Your task to perform on an android device: toggle priority inbox in the gmail app Image 0: 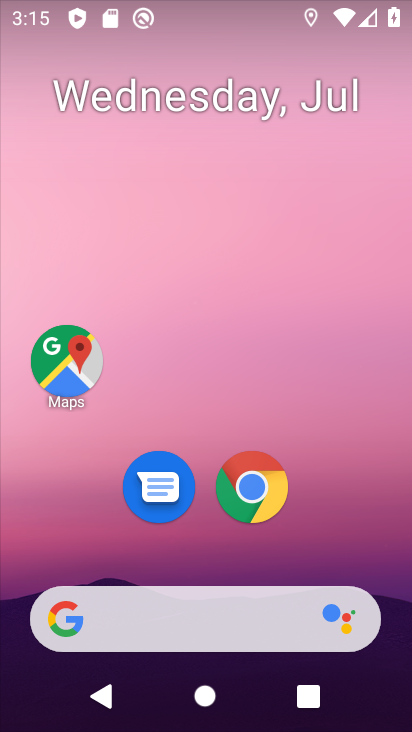
Step 0: drag from (173, 534) to (281, 14)
Your task to perform on an android device: toggle priority inbox in the gmail app Image 1: 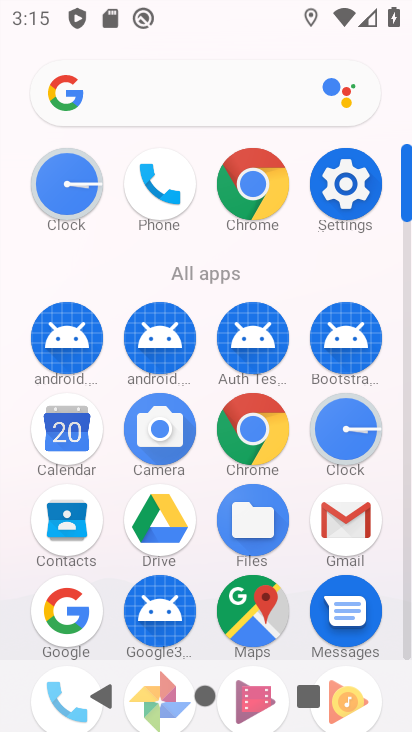
Step 1: click (364, 523)
Your task to perform on an android device: toggle priority inbox in the gmail app Image 2: 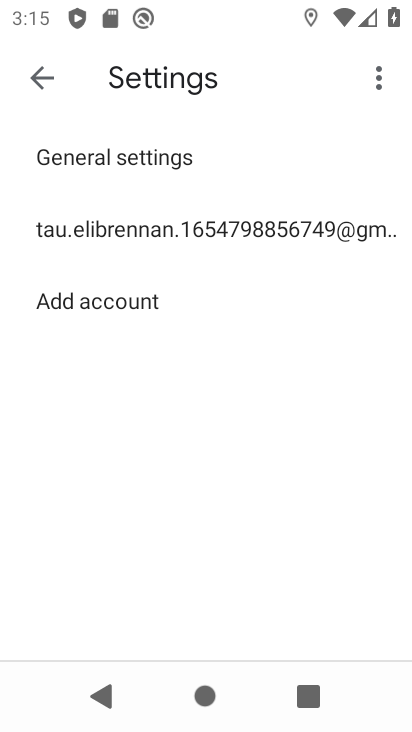
Step 2: click (100, 226)
Your task to perform on an android device: toggle priority inbox in the gmail app Image 3: 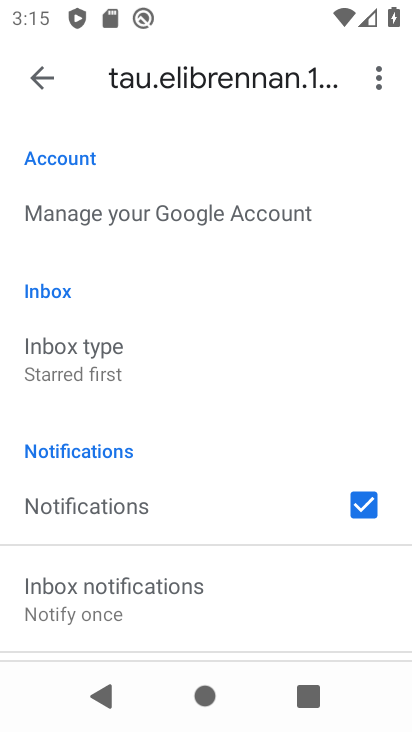
Step 3: click (116, 355)
Your task to perform on an android device: toggle priority inbox in the gmail app Image 4: 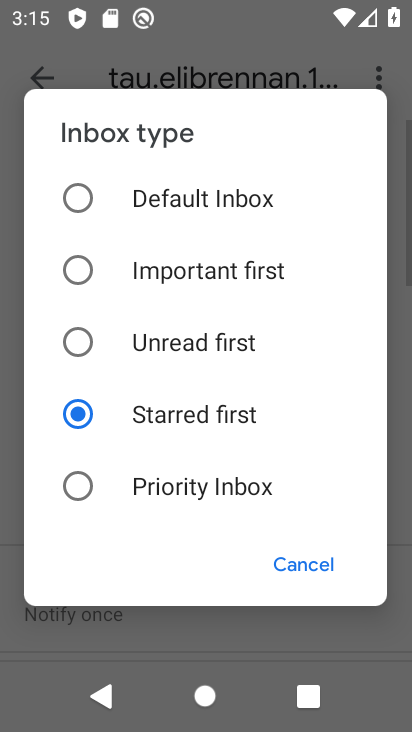
Step 4: click (130, 487)
Your task to perform on an android device: toggle priority inbox in the gmail app Image 5: 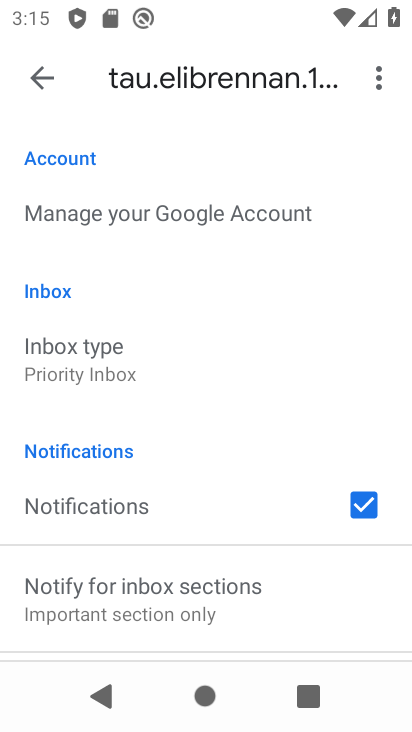
Step 5: task complete